Your task to perform on an android device: Open Reddit.com Image 0: 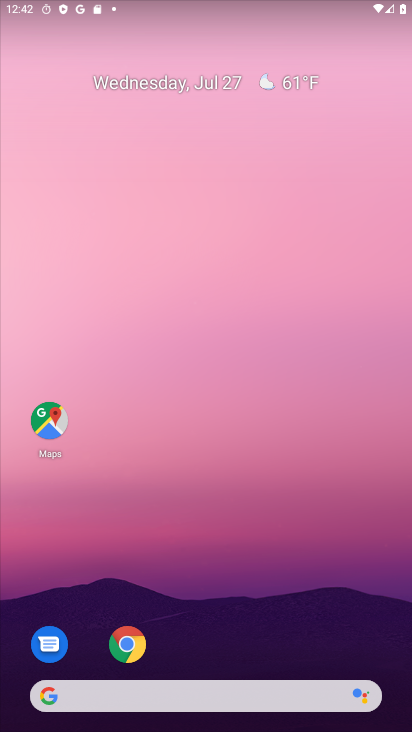
Step 0: drag from (243, 626) to (231, 110)
Your task to perform on an android device: Open Reddit.com Image 1: 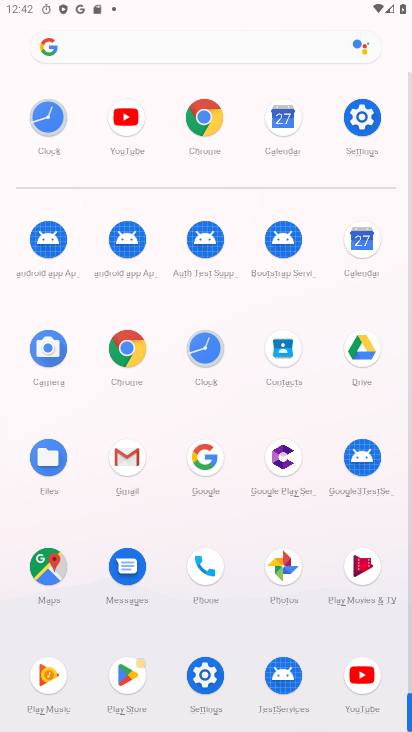
Step 1: click (123, 48)
Your task to perform on an android device: Open Reddit.com Image 2: 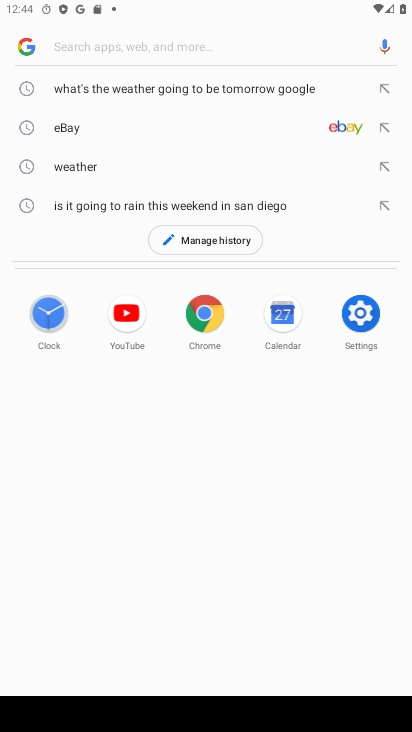
Step 2: type "Reddit.com"
Your task to perform on an android device: Open Reddit.com Image 3: 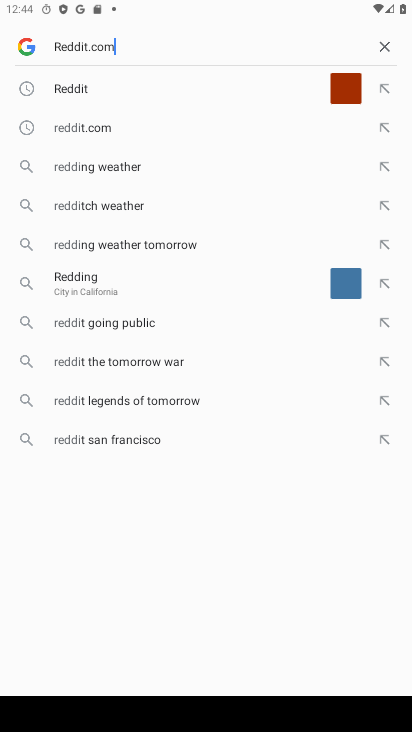
Step 3: type ""
Your task to perform on an android device: Open Reddit.com Image 4: 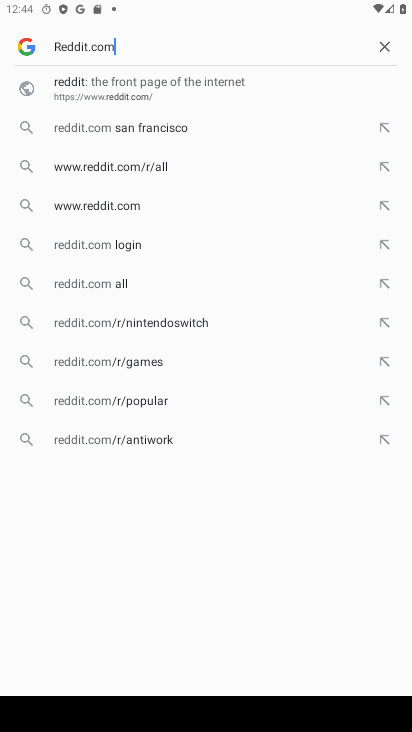
Step 4: click (90, 90)
Your task to perform on an android device: Open Reddit.com Image 5: 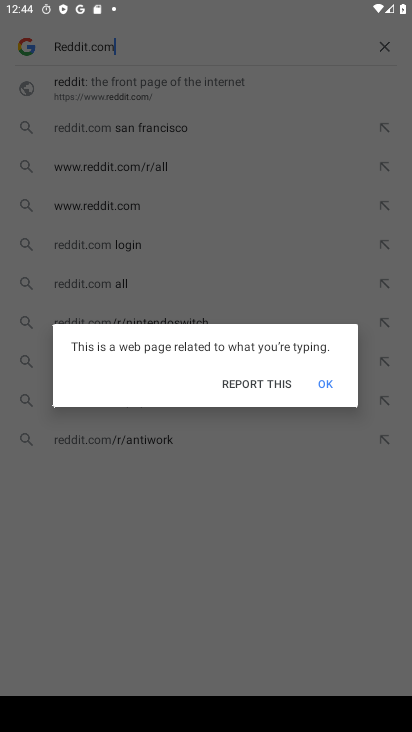
Step 5: click (91, 90)
Your task to perform on an android device: Open Reddit.com Image 6: 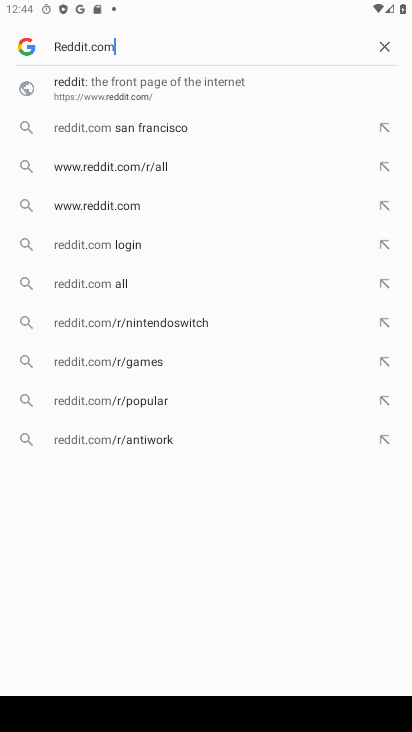
Step 6: click (33, 202)
Your task to perform on an android device: Open Reddit.com Image 7: 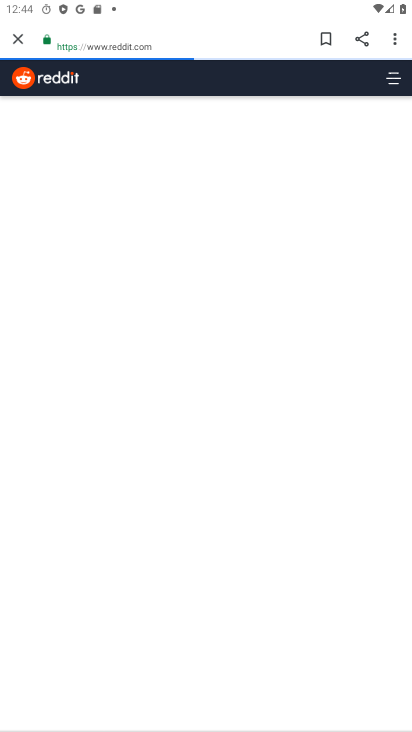
Step 7: task complete